Your task to perform on an android device: Open settings Image 0: 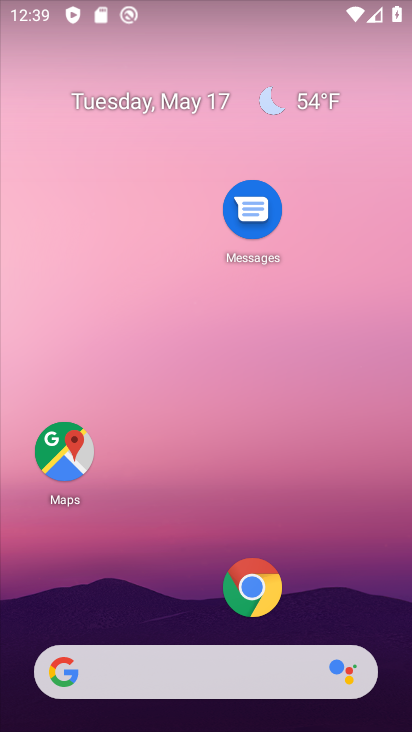
Step 0: drag from (191, 587) to (229, 77)
Your task to perform on an android device: Open settings Image 1: 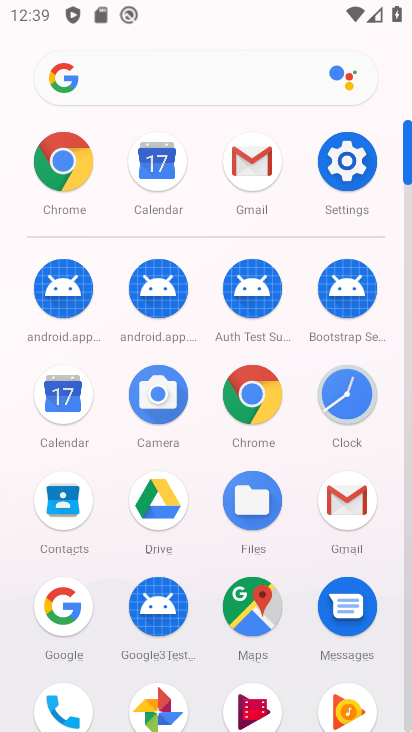
Step 1: click (363, 167)
Your task to perform on an android device: Open settings Image 2: 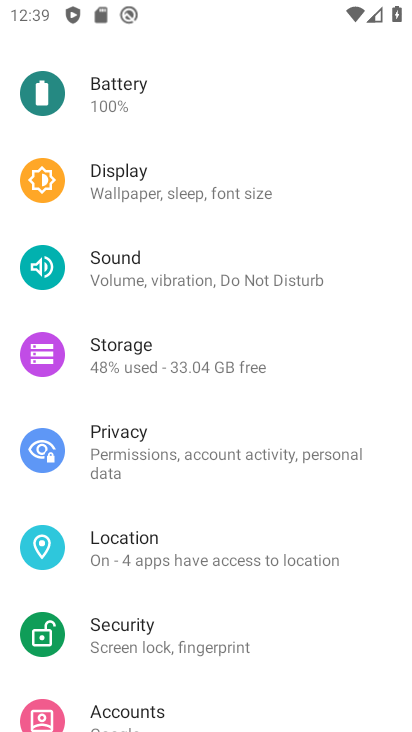
Step 2: click (320, 134)
Your task to perform on an android device: Open settings Image 3: 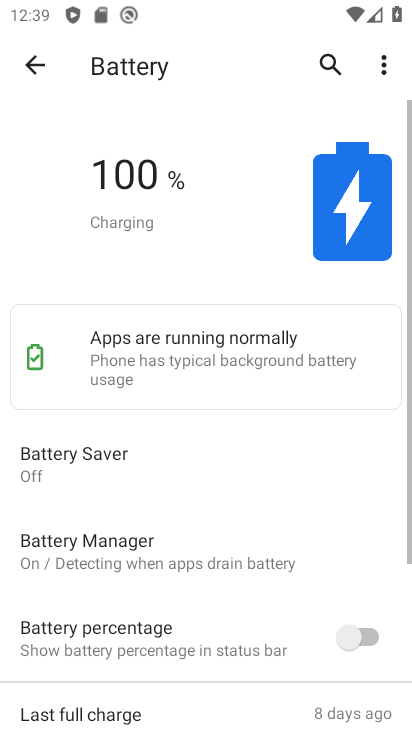
Step 3: task complete